Your task to perform on an android device: change notifications settings Image 0: 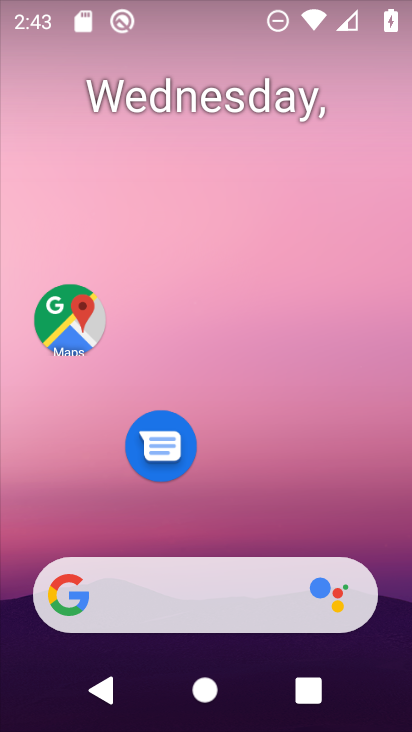
Step 0: drag from (324, 504) to (288, 126)
Your task to perform on an android device: change notifications settings Image 1: 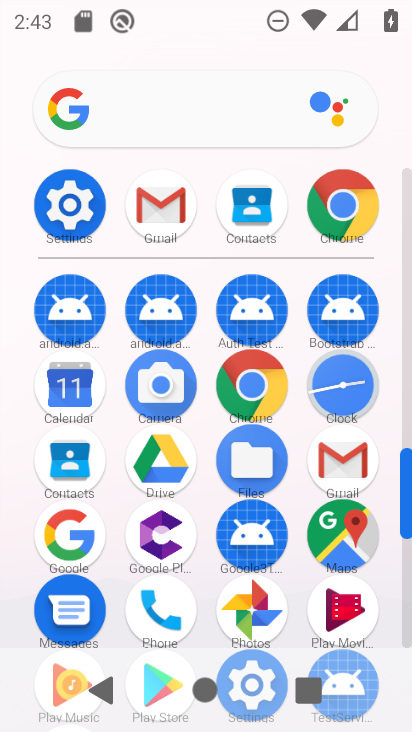
Step 1: click (73, 206)
Your task to perform on an android device: change notifications settings Image 2: 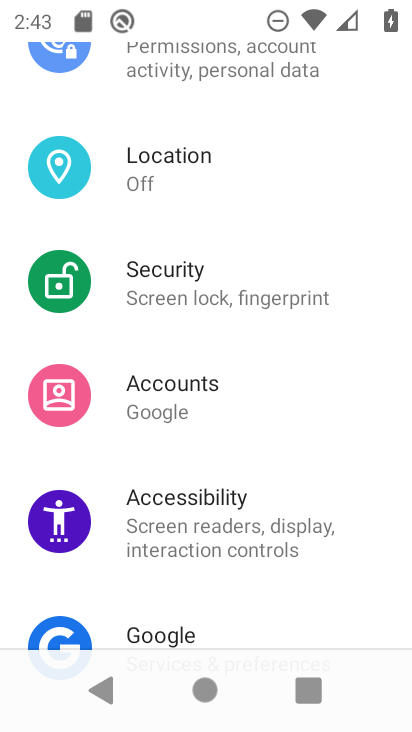
Step 2: drag from (242, 137) to (281, 553)
Your task to perform on an android device: change notifications settings Image 3: 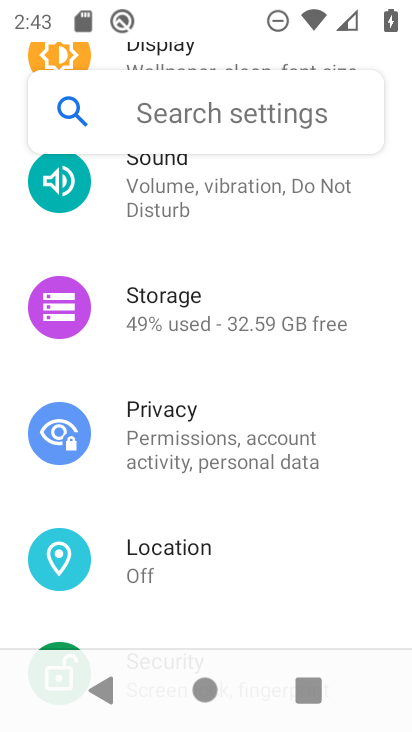
Step 3: drag from (322, 317) to (309, 644)
Your task to perform on an android device: change notifications settings Image 4: 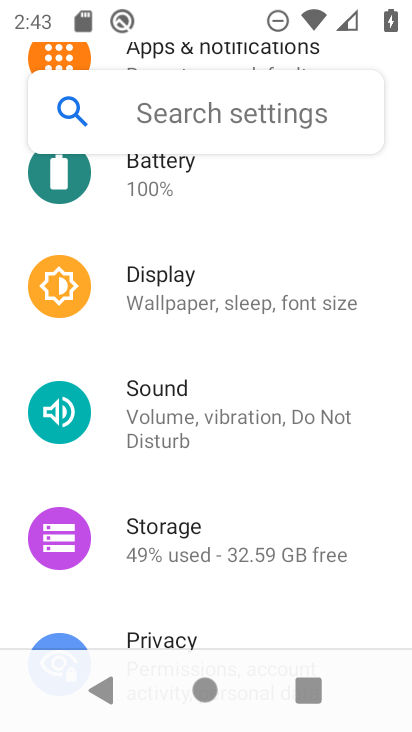
Step 4: drag from (253, 261) to (255, 596)
Your task to perform on an android device: change notifications settings Image 5: 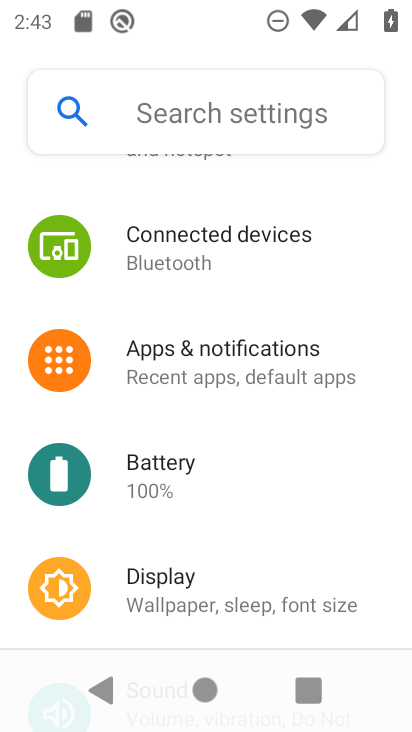
Step 5: click (260, 360)
Your task to perform on an android device: change notifications settings Image 6: 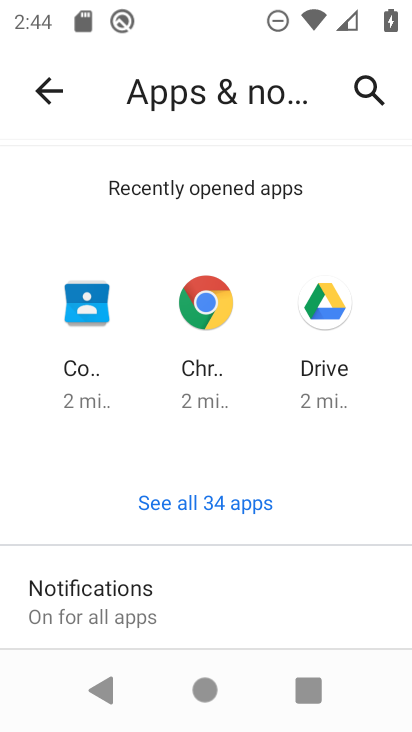
Step 6: click (274, 622)
Your task to perform on an android device: change notifications settings Image 7: 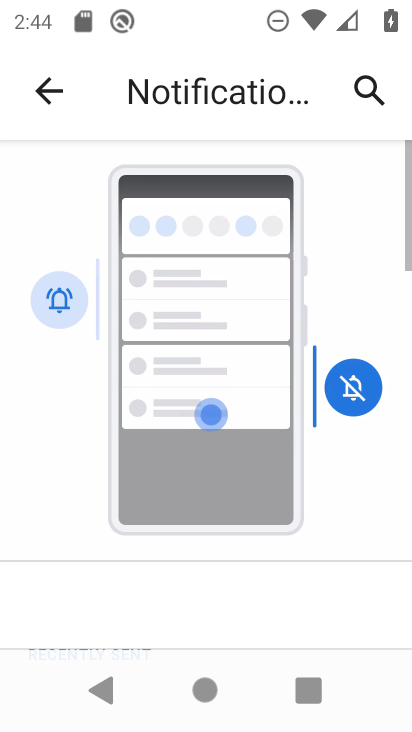
Step 7: task complete